Your task to perform on an android device: install app "Venmo" Image 0: 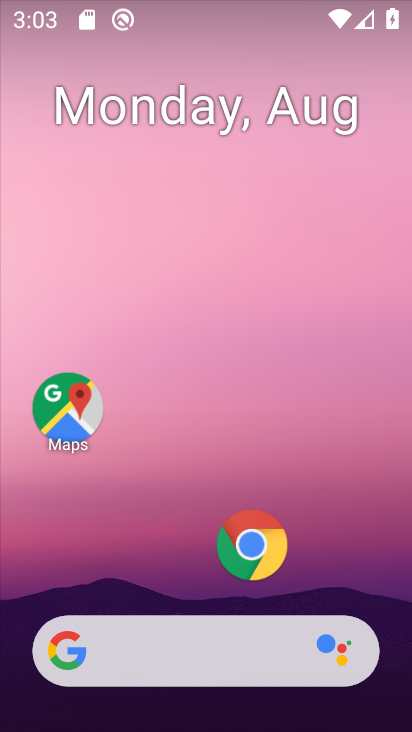
Step 0: drag from (135, 507) to (239, 30)
Your task to perform on an android device: install app "Venmo" Image 1: 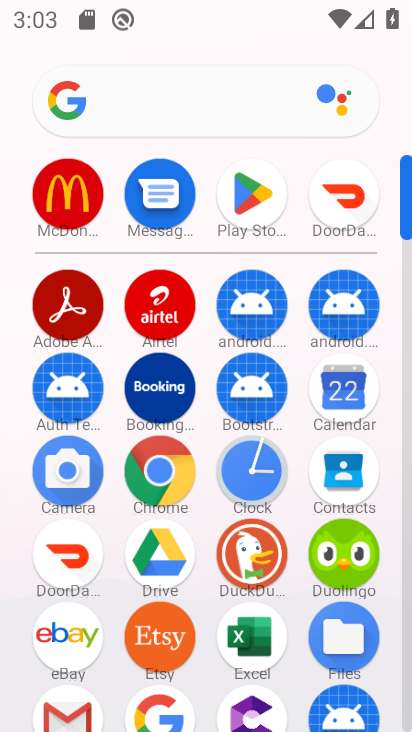
Step 1: click (244, 197)
Your task to perform on an android device: install app "Venmo" Image 2: 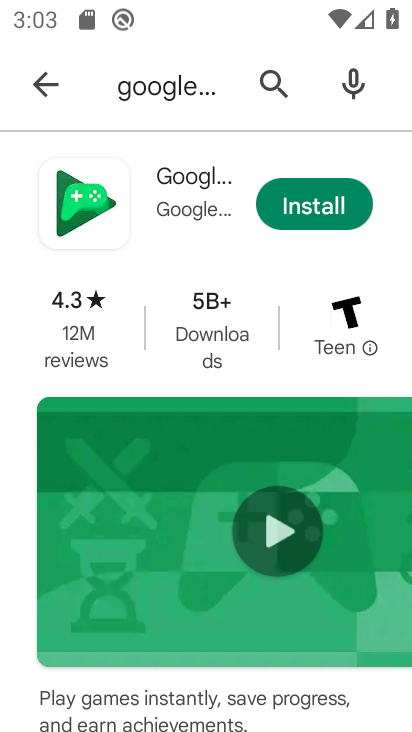
Step 2: click (262, 74)
Your task to perform on an android device: install app "Venmo" Image 3: 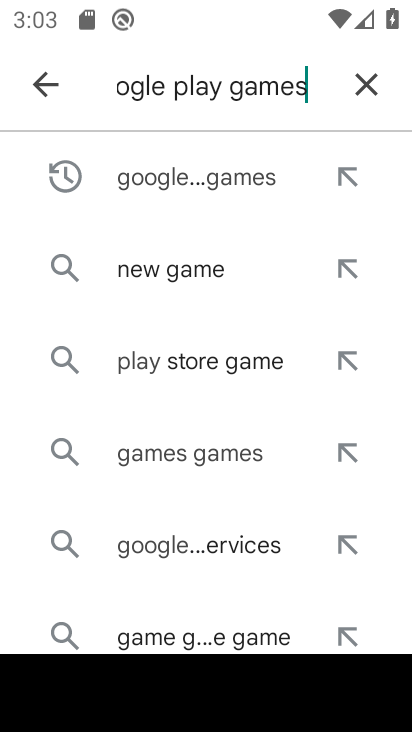
Step 3: click (379, 91)
Your task to perform on an android device: install app "Venmo" Image 4: 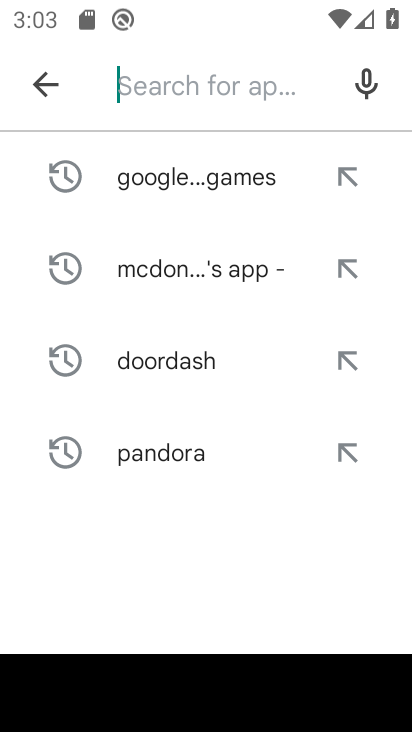
Step 4: click (133, 95)
Your task to perform on an android device: install app "Venmo" Image 5: 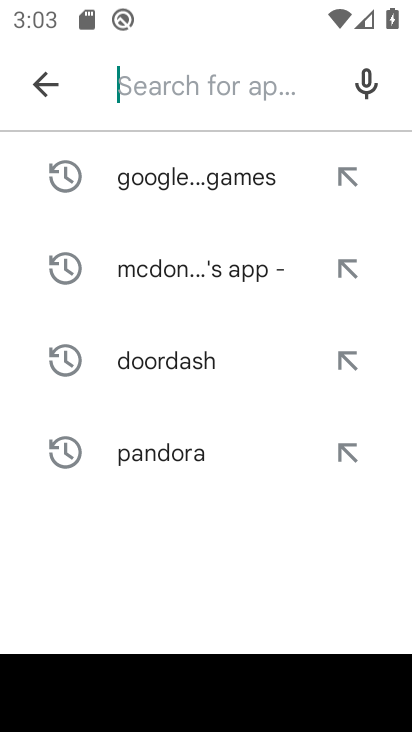
Step 5: type "venmo"
Your task to perform on an android device: install app "Venmo" Image 6: 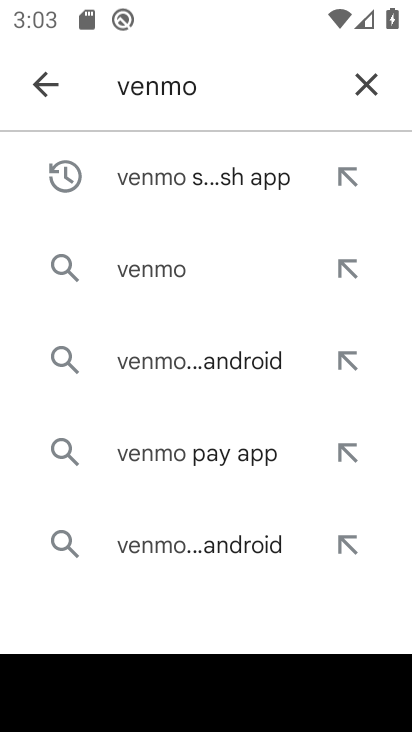
Step 6: click (198, 180)
Your task to perform on an android device: install app "Venmo" Image 7: 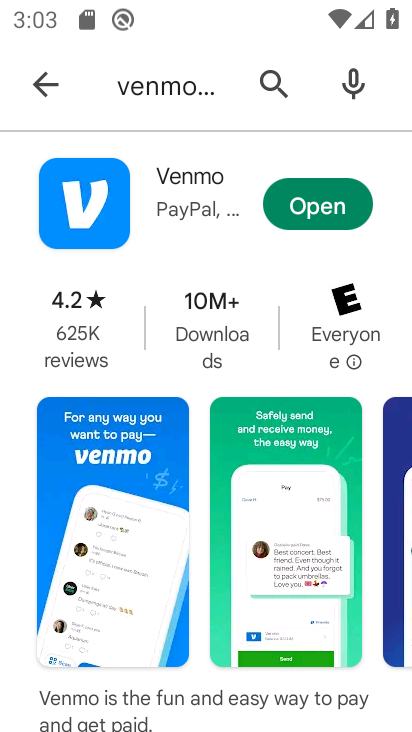
Step 7: task complete